Your task to perform on an android device: Is it going to rain tomorrow? Image 0: 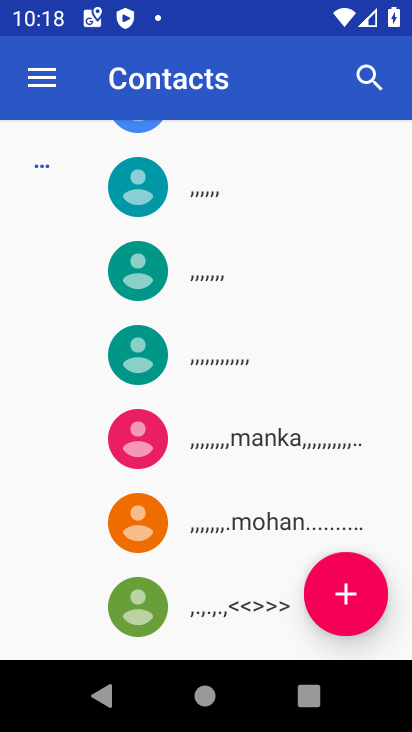
Step 0: press home button
Your task to perform on an android device: Is it going to rain tomorrow? Image 1: 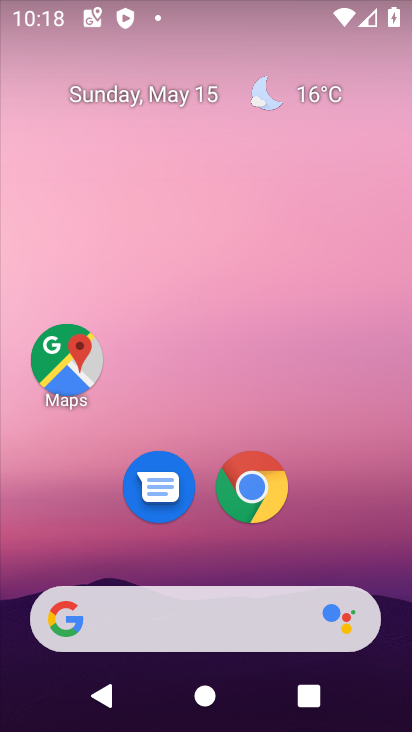
Step 1: click (308, 98)
Your task to perform on an android device: Is it going to rain tomorrow? Image 2: 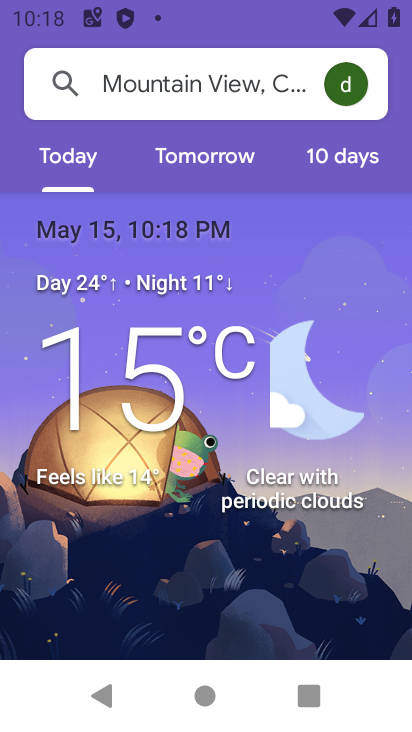
Step 2: click (217, 147)
Your task to perform on an android device: Is it going to rain tomorrow? Image 3: 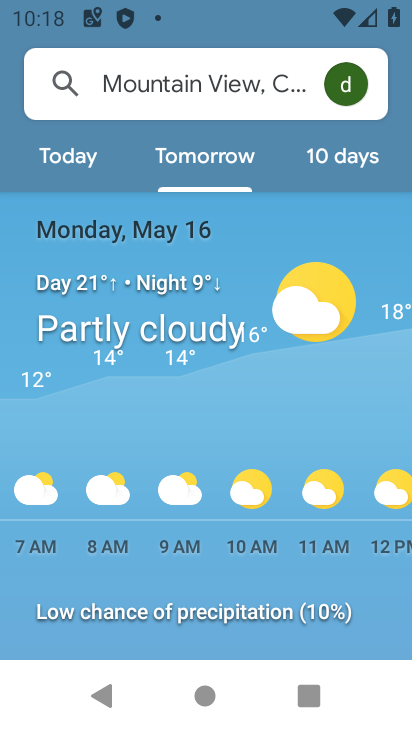
Step 3: task complete